Your task to perform on an android device: turn on the 24-hour format for clock Image 0: 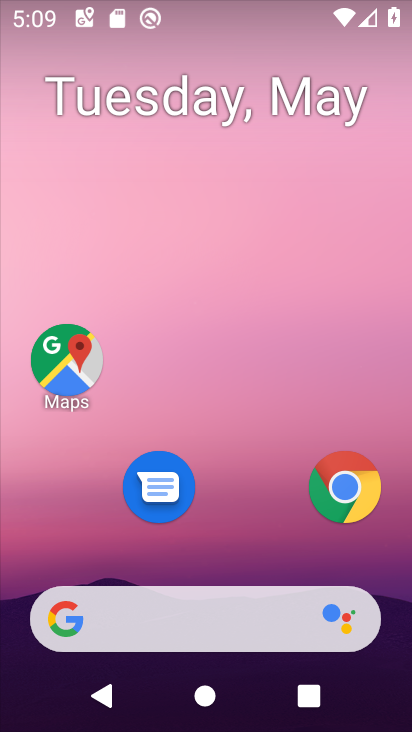
Step 0: drag from (259, 548) to (256, 16)
Your task to perform on an android device: turn on the 24-hour format for clock Image 1: 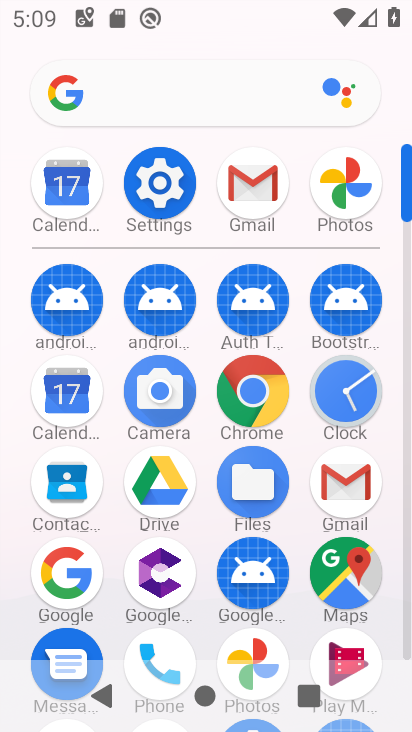
Step 1: click (337, 361)
Your task to perform on an android device: turn on the 24-hour format for clock Image 2: 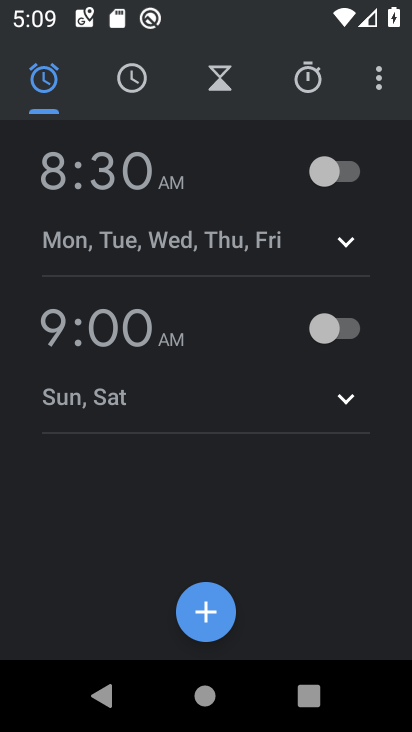
Step 2: click (372, 77)
Your task to perform on an android device: turn on the 24-hour format for clock Image 3: 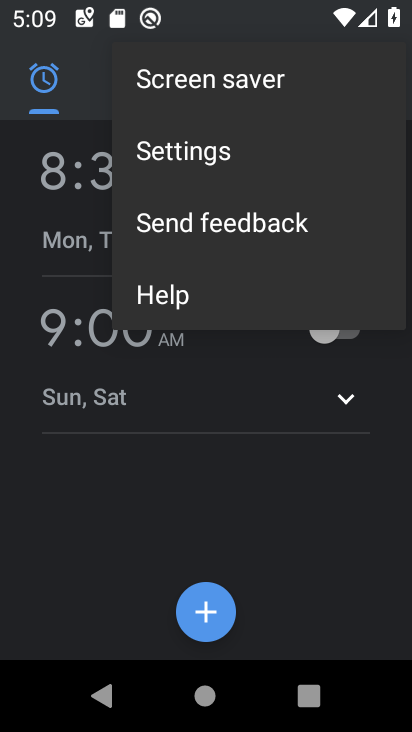
Step 3: click (295, 146)
Your task to perform on an android device: turn on the 24-hour format for clock Image 4: 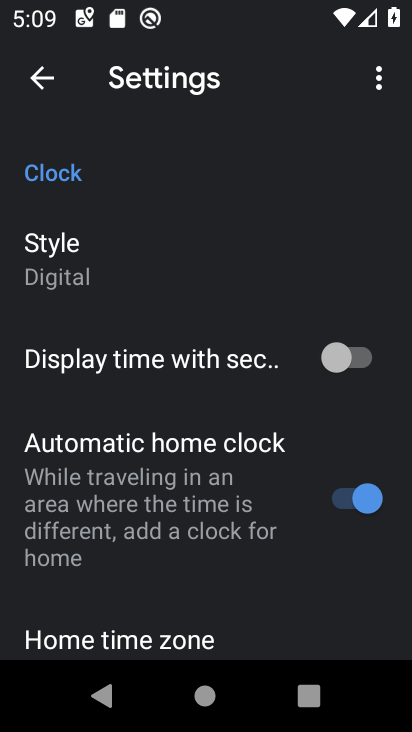
Step 4: drag from (228, 602) to (237, 264)
Your task to perform on an android device: turn on the 24-hour format for clock Image 5: 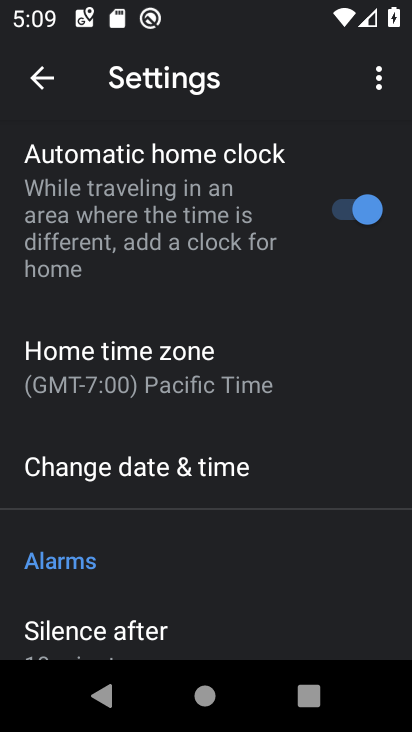
Step 5: click (210, 477)
Your task to perform on an android device: turn on the 24-hour format for clock Image 6: 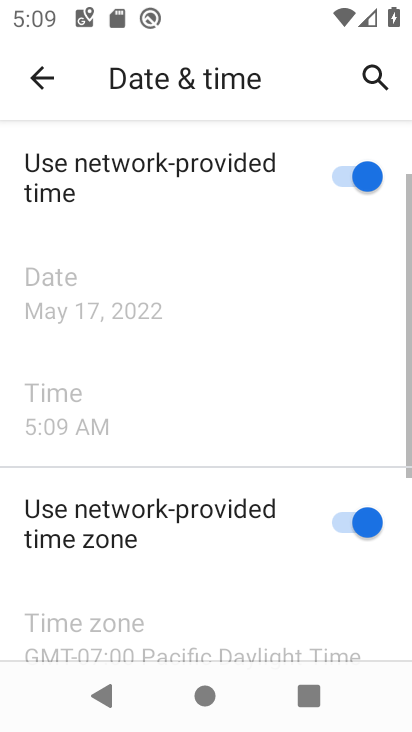
Step 6: drag from (192, 549) to (260, 146)
Your task to perform on an android device: turn on the 24-hour format for clock Image 7: 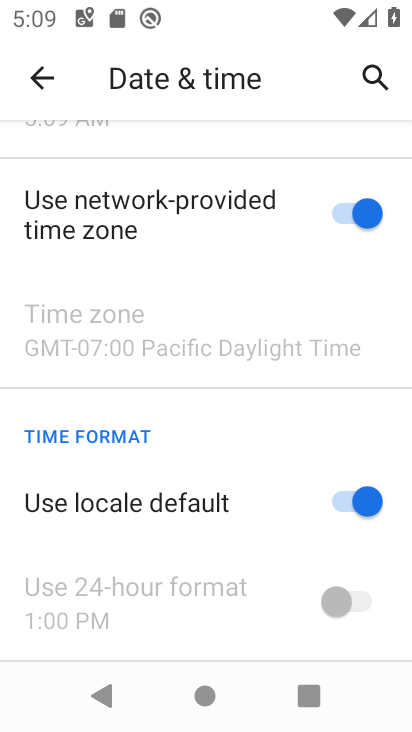
Step 7: drag from (219, 484) to (263, 114)
Your task to perform on an android device: turn on the 24-hour format for clock Image 8: 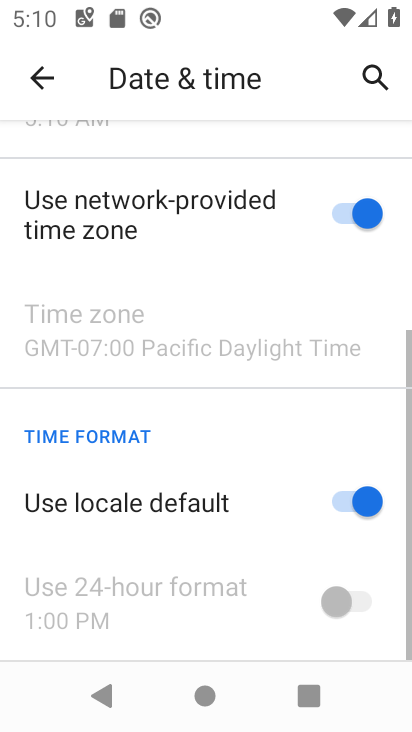
Step 8: click (378, 516)
Your task to perform on an android device: turn on the 24-hour format for clock Image 9: 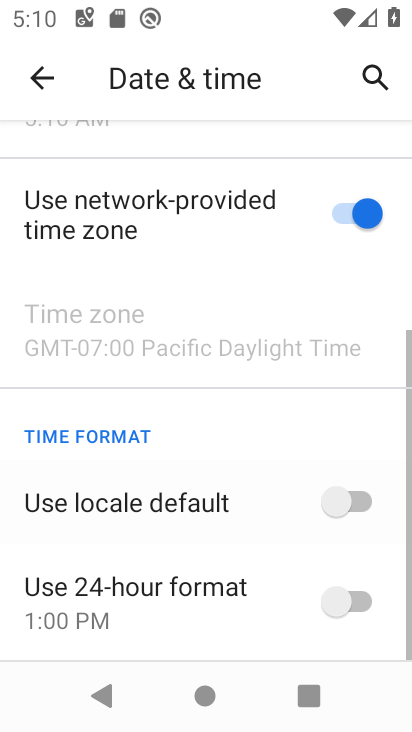
Step 9: click (334, 613)
Your task to perform on an android device: turn on the 24-hour format for clock Image 10: 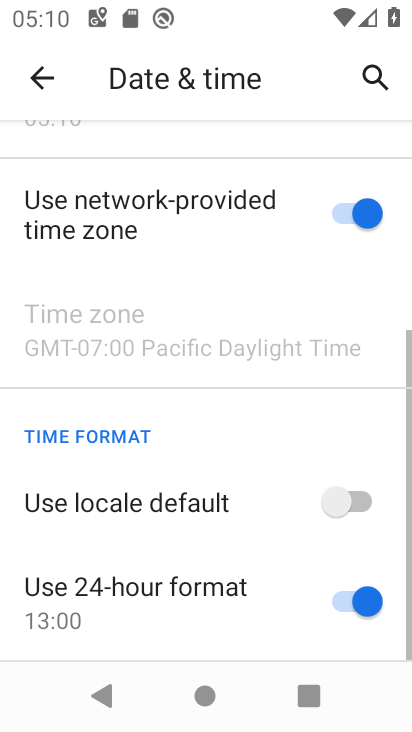
Step 10: task complete